Your task to perform on an android device: toggle pop-ups in chrome Image 0: 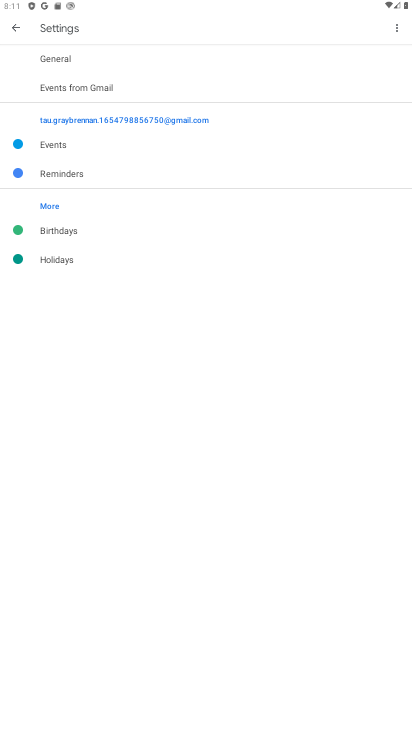
Step 0: press home button
Your task to perform on an android device: toggle pop-ups in chrome Image 1: 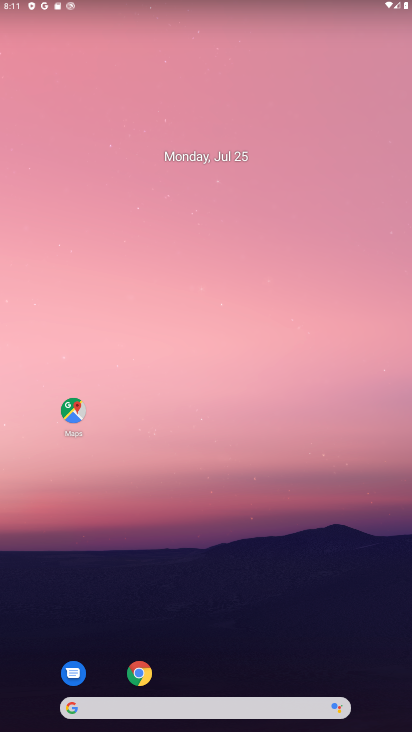
Step 1: click (141, 670)
Your task to perform on an android device: toggle pop-ups in chrome Image 2: 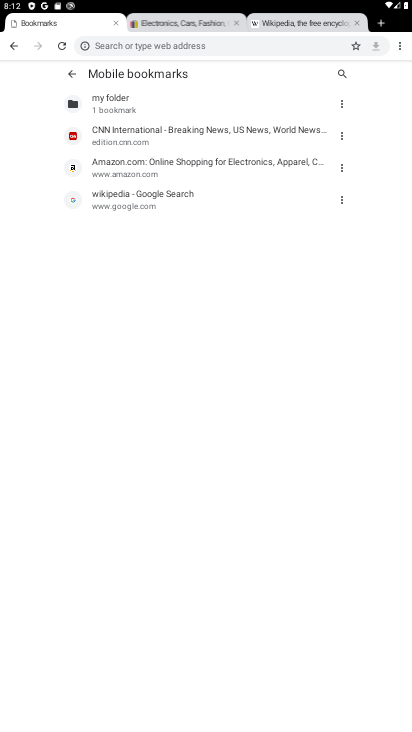
Step 2: click (400, 44)
Your task to perform on an android device: toggle pop-ups in chrome Image 3: 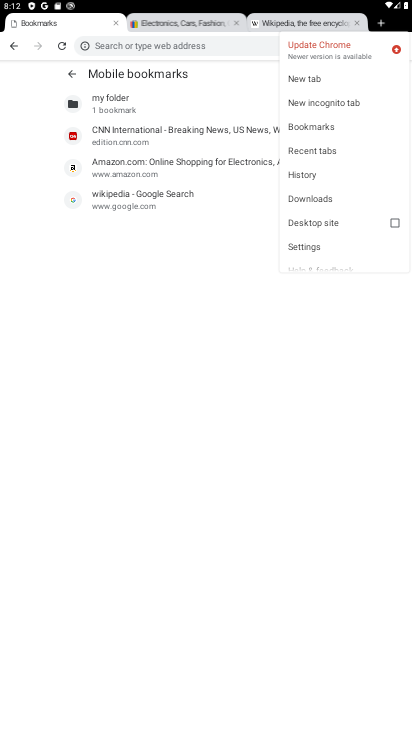
Step 3: click (320, 243)
Your task to perform on an android device: toggle pop-ups in chrome Image 4: 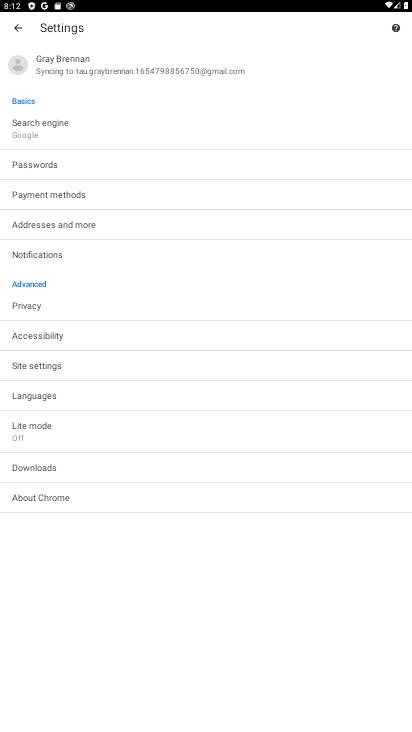
Step 4: click (200, 368)
Your task to perform on an android device: toggle pop-ups in chrome Image 5: 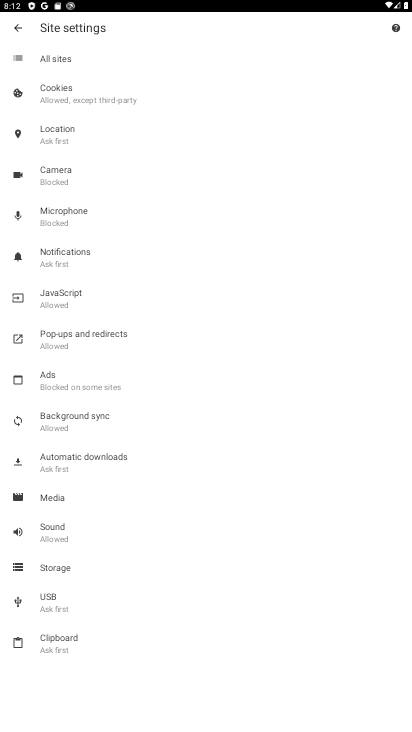
Step 5: click (148, 340)
Your task to perform on an android device: toggle pop-ups in chrome Image 6: 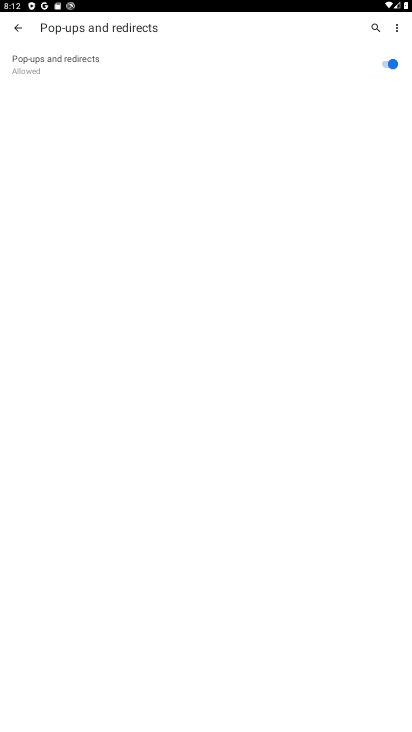
Step 6: task complete